Your task to perform on an android device: Show me recent news Image 0: 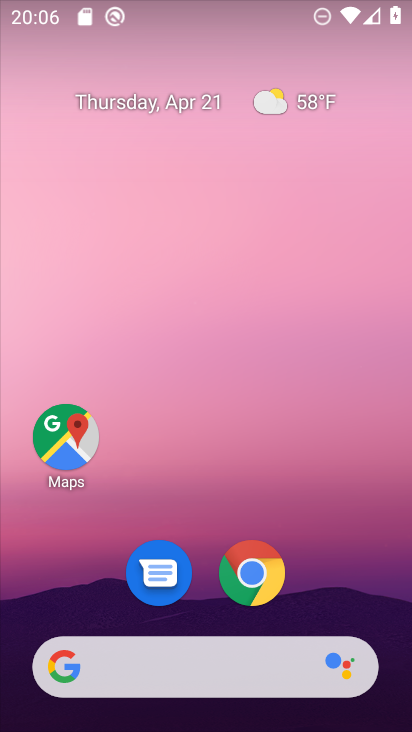
Step 0: drag from (195, 498) to (195, 223)
Your task to perform on an android device: Show me recent news Image 1: 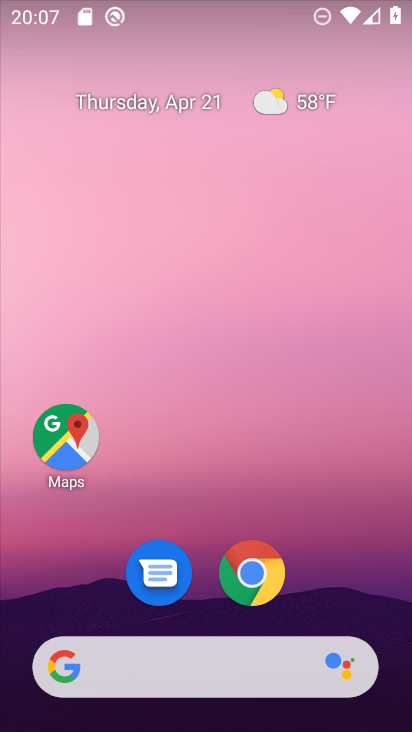
Step 1: drag from (246, 637) to (330, 108)
Your task to perform on an android device: Show me recent news Image 2: 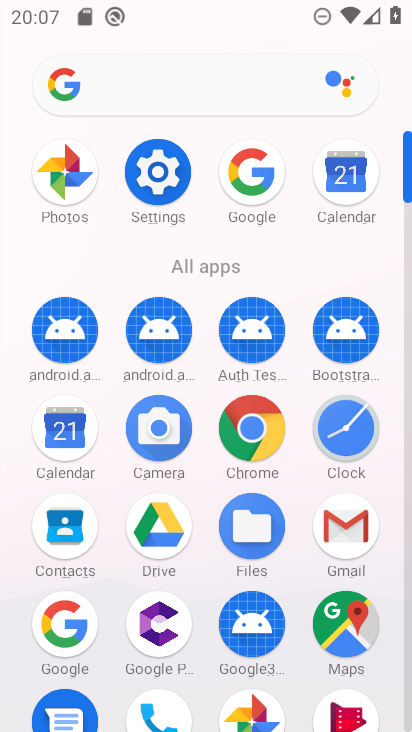
Step 2: click (72, 627)
Your task to perform on an android device: Show me recent news Image 3: 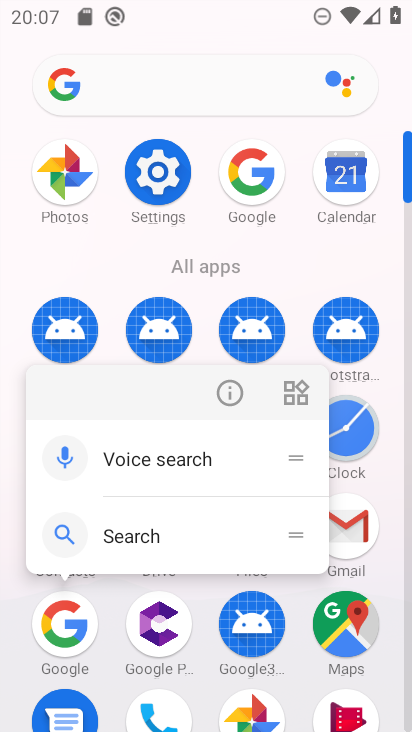
Step 3: click (63, 630)
Your task to perform on an android device: Show me recent news Image 4: 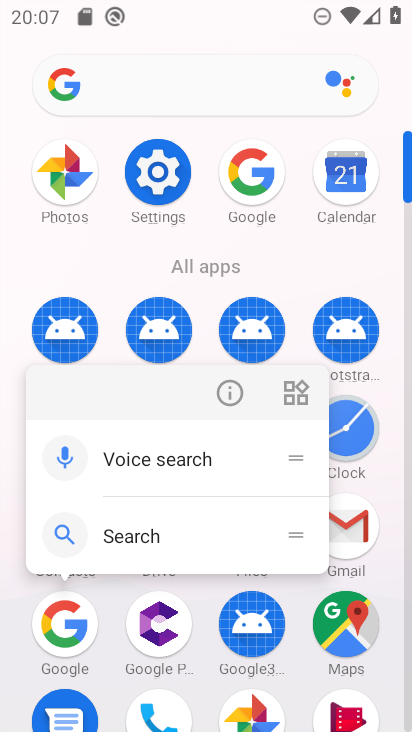
Step 4: click (59, 622)
Your task to perform on an android device: Show me recent news Image 5: 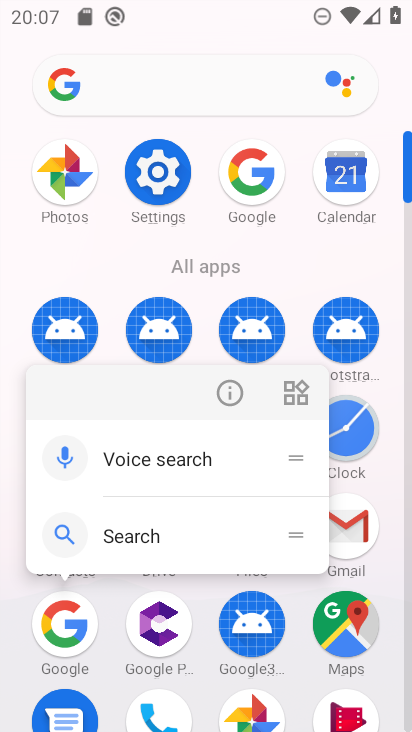
Step 5: click (59, 622)
Your task to perform on an android device: Show me recent news Image 6: 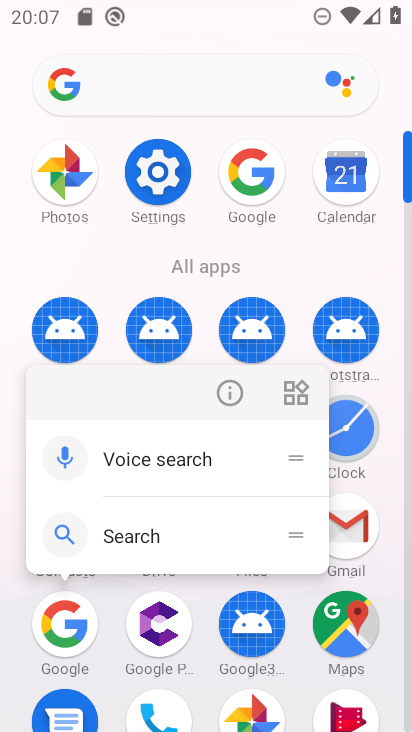
Step 6: click (60, 621)
Your task to perform on an android device: Show me recent news Image 7: 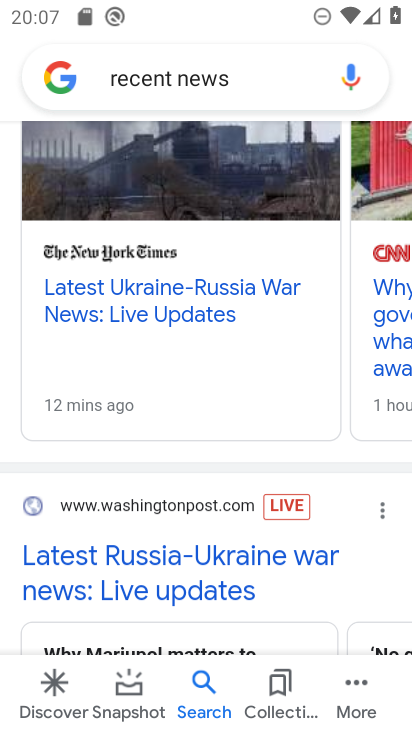
Step 7: task complete